Your task to perform on an android device: change the clock display to analog Image 0: 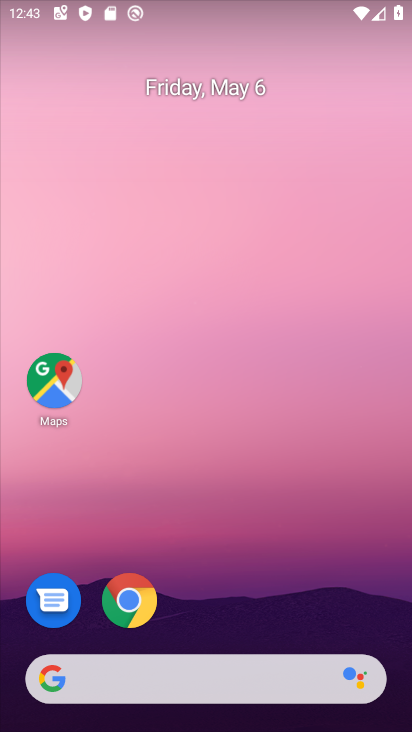
Step 0: drag from (355, 618) to (264, 41)
Your task to perform on an android device: change the clock display to analog Image 1: 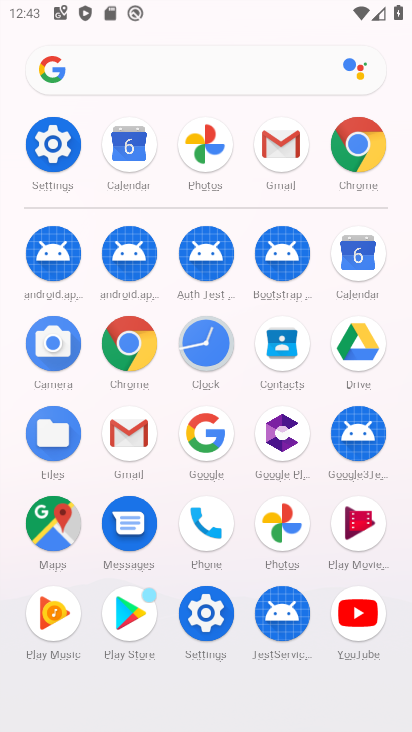
Step 1: click (202, 640)
Your task to perform on an android device: change the clock display to analog Image 2: 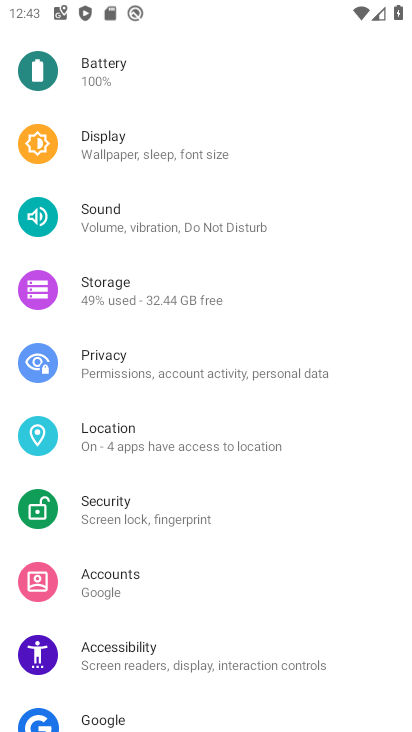
Step 2: press home button
Your task to perform on an android device: change the clock display to analog Image 3: 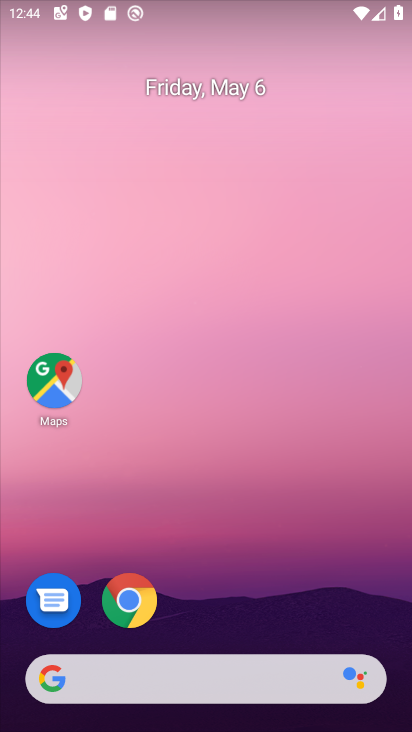
Step 3: drag from (275, 626) to (259, 111)
Your task to perform on an android device: change the clock display to analog Image 4: 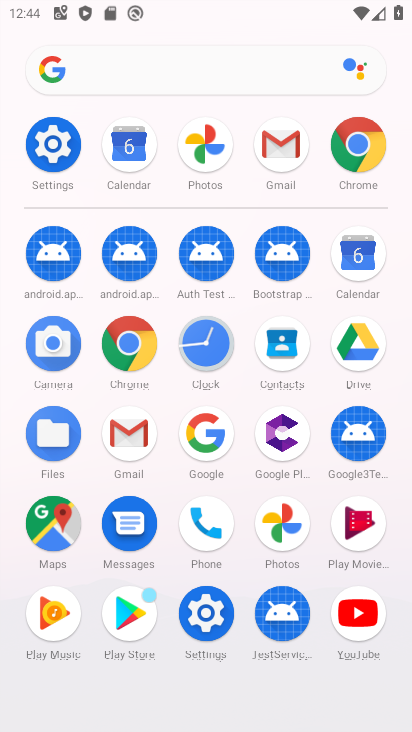
Step 4: click (225, 345)
Your task to perform on an android device: change the clock display to analog Image 5: 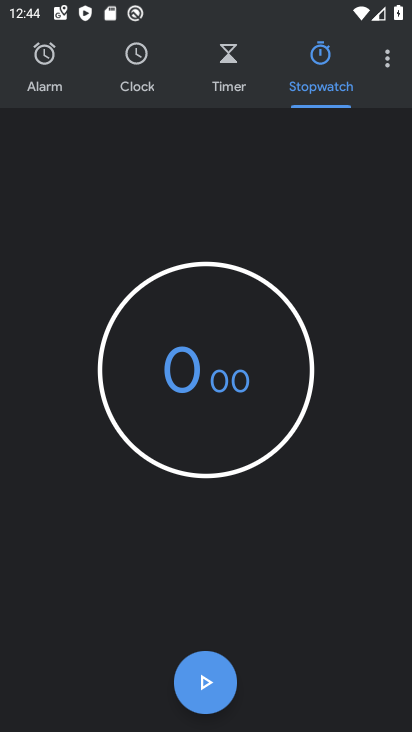
Step 5: click (377, 59)
Your task to perform on an android device: change the clock display to analog Image 6: 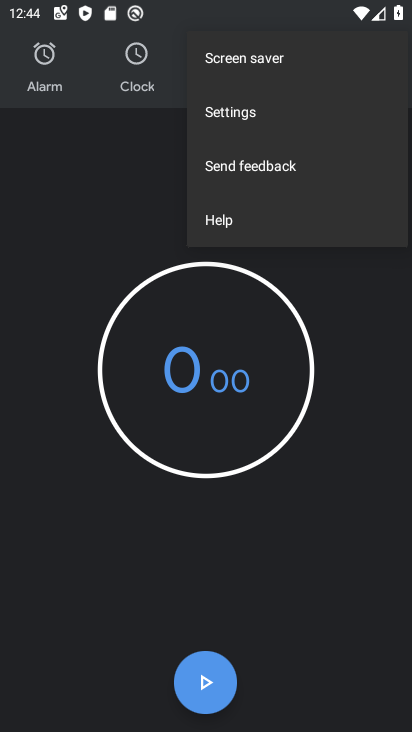
Step 6: click (239, 122)
Your task to perform on an android device: change the clock display to analog Image 7: 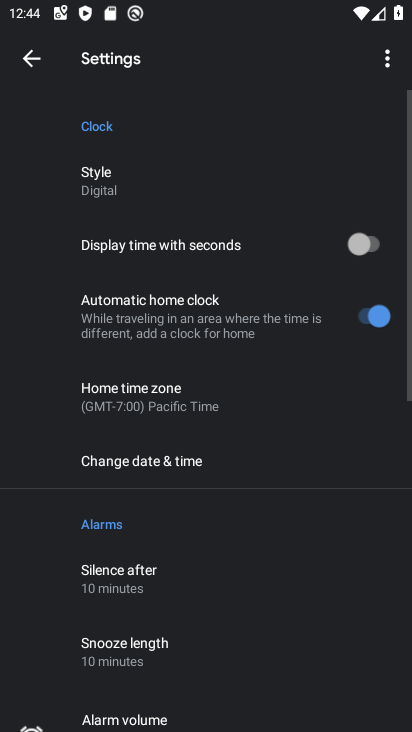
Step 7: click (202, 166)
Your task to perform on an android device: change the clock display to analog Image 8: 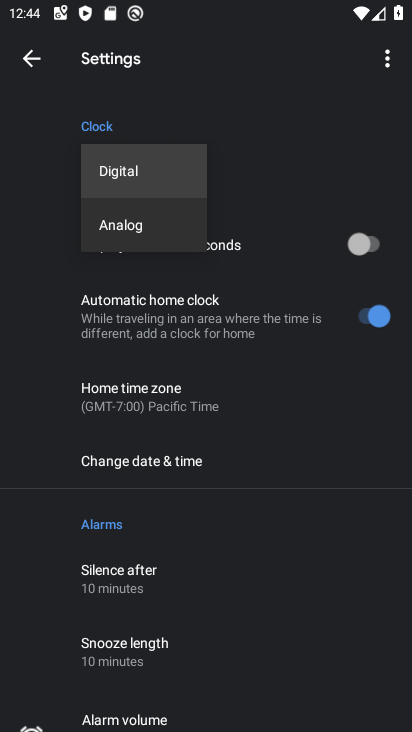
Step 8: click (123, 238)
Your task to perform on an android device: change the clock display to analog Image 9: 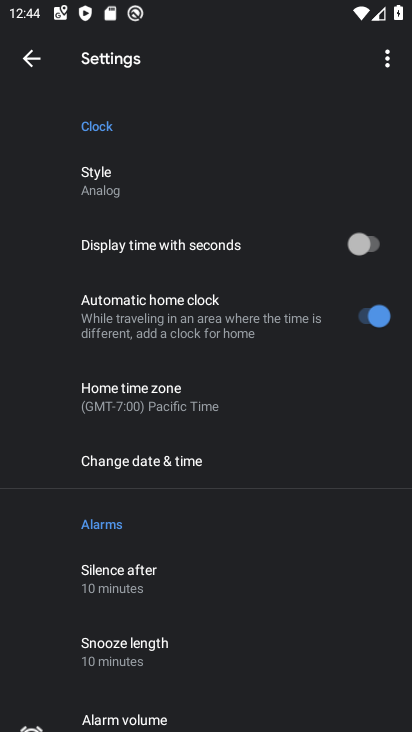
Step 9: task complete